Your task to perform on an android device: Go to ESPN.com Image 0: 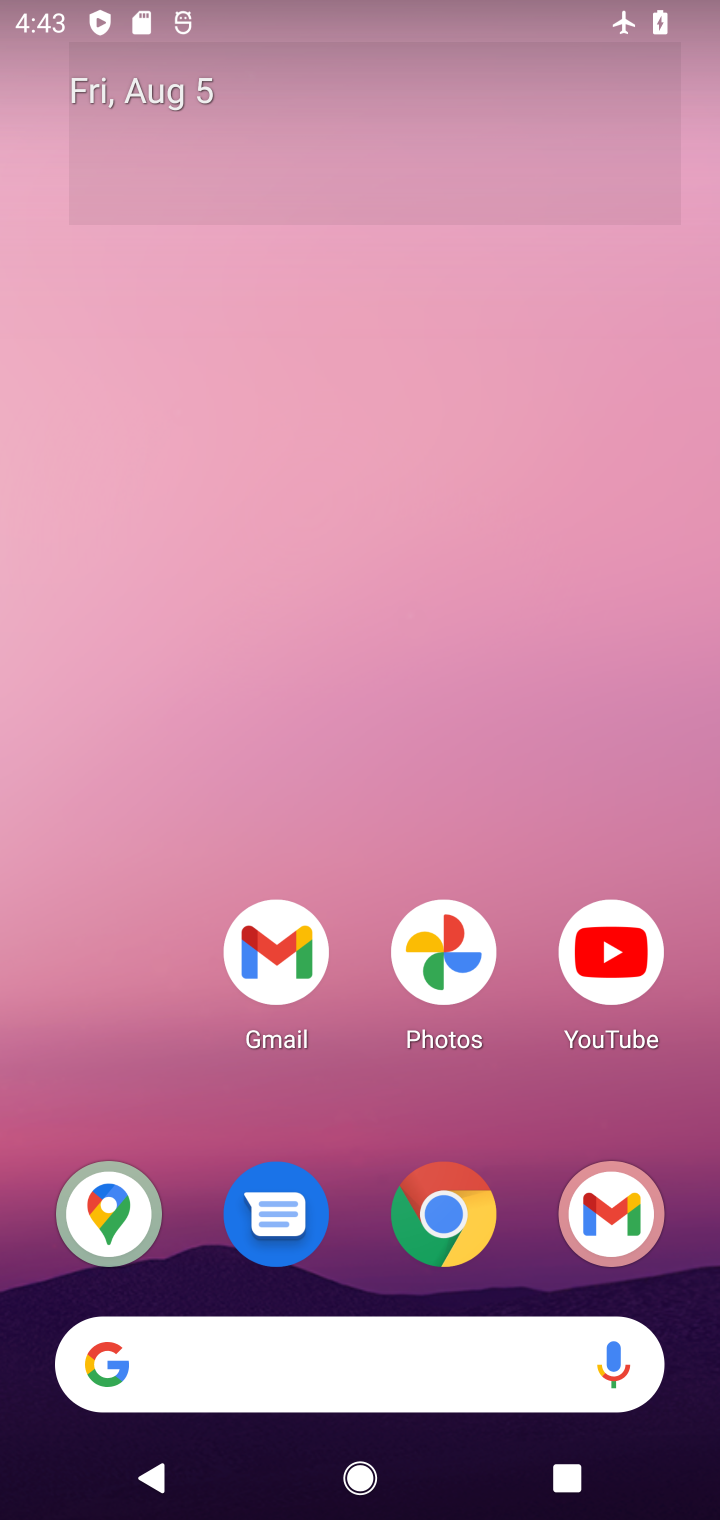
Step 0: click (232, 1373)
Your task to perform on an android device: Go to ESPN.com Image 1: 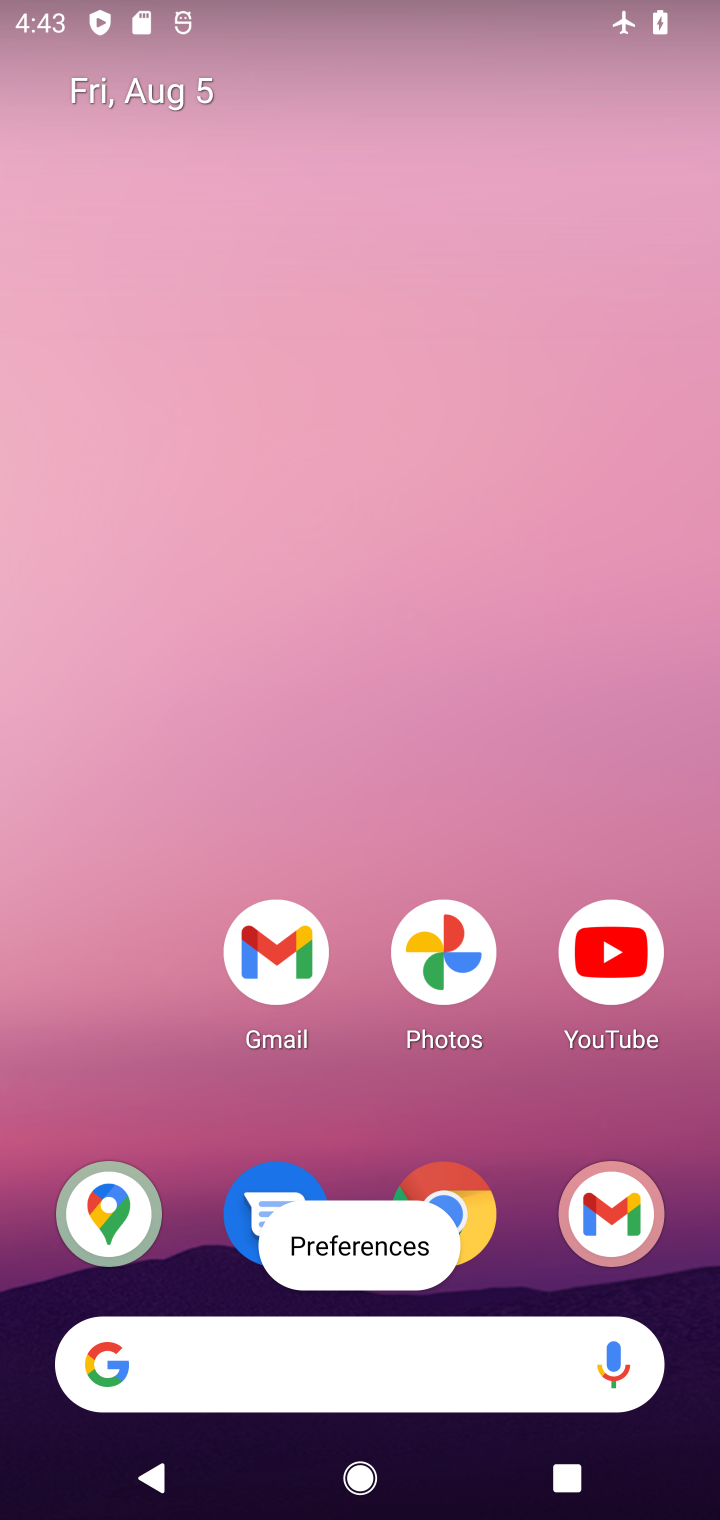
Step 1: click (232, 1373)
Your task to perform on an android device: Go to ESPN.com Image 2: 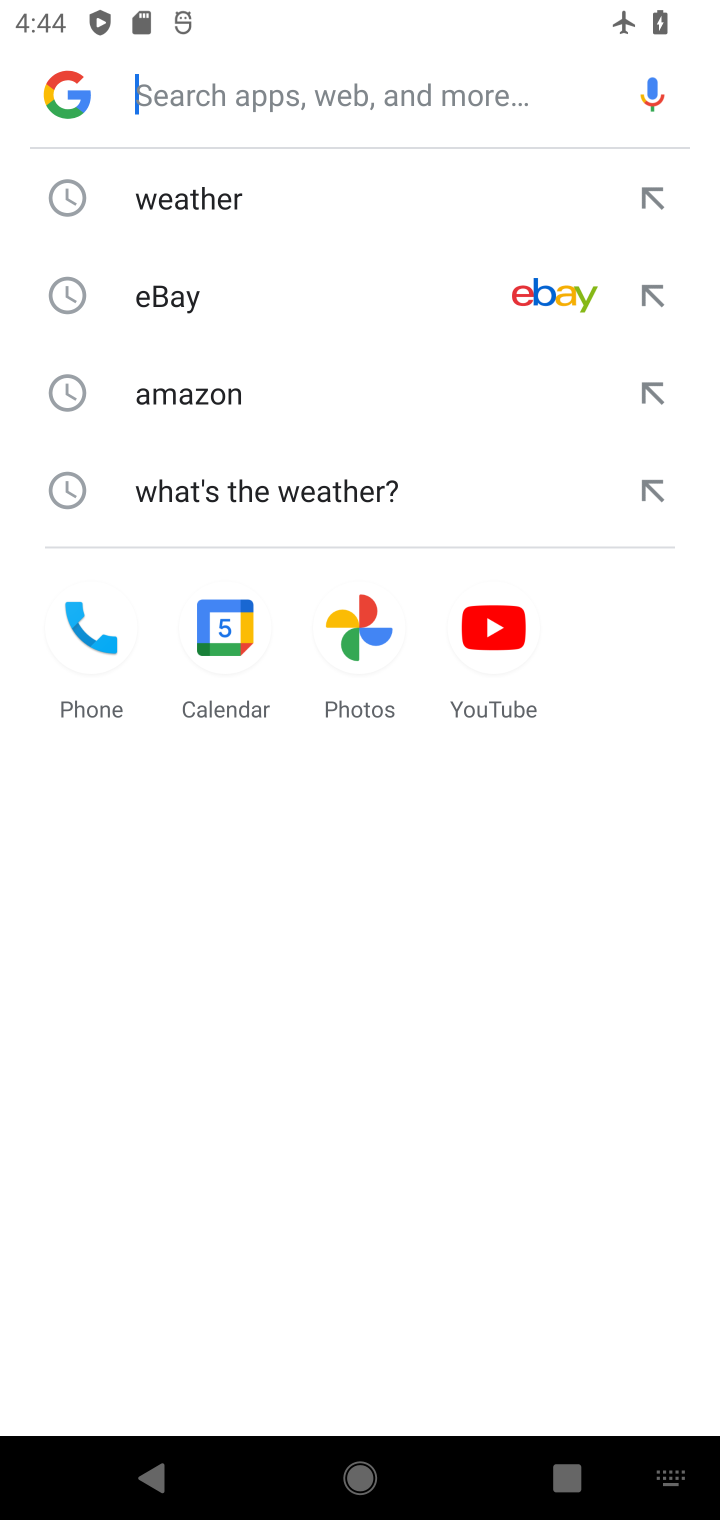
Step 2: type "espn.com"
Your task to perform on an android device: Go to ESPN.com Image 3: 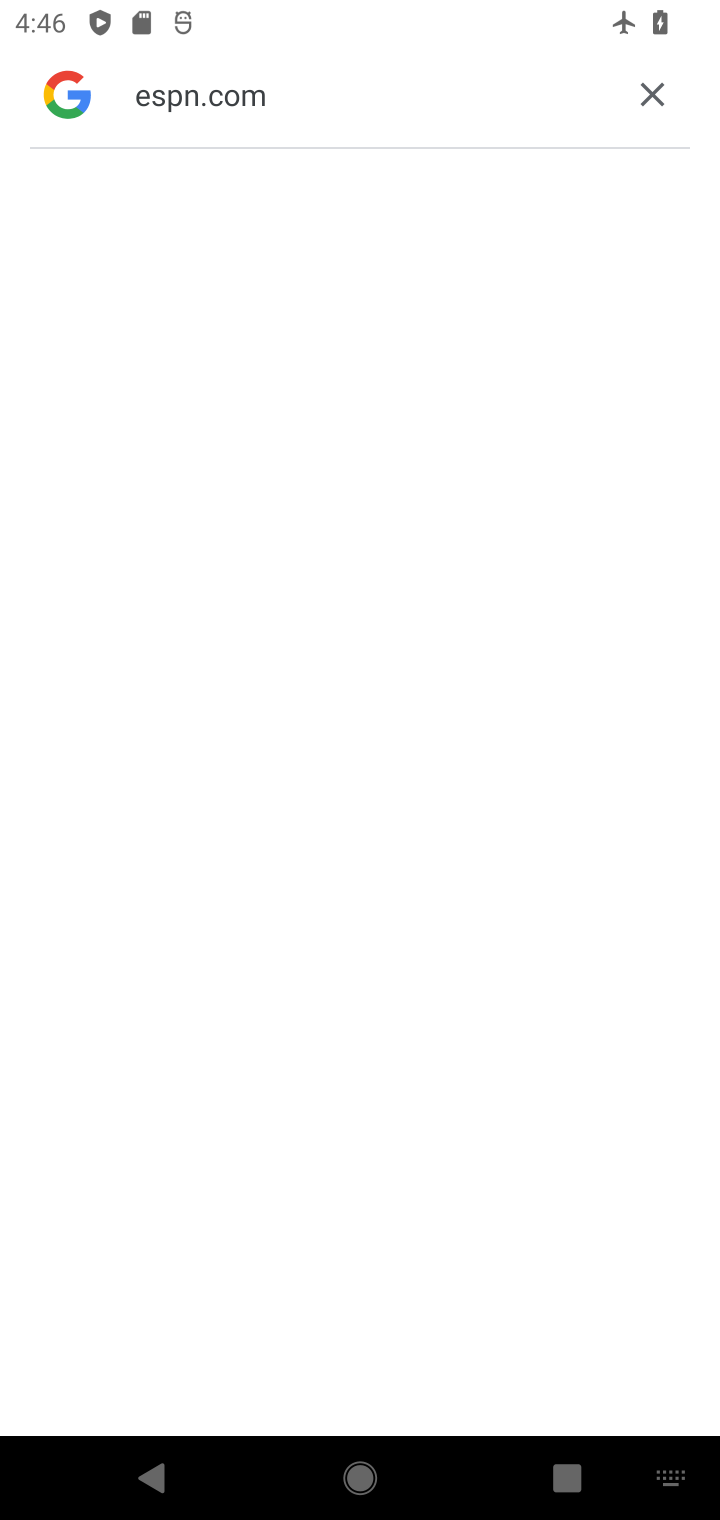
Step 3: task complete